Your task to perform on an android device: Open display settings Image 0: 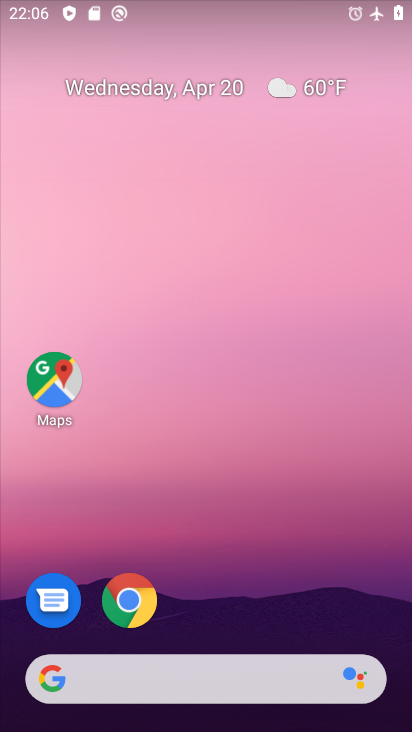
Step 0: drag from (256, 648) to (265, 12)
Your task to perform on an android device: Open display settings Image 1: 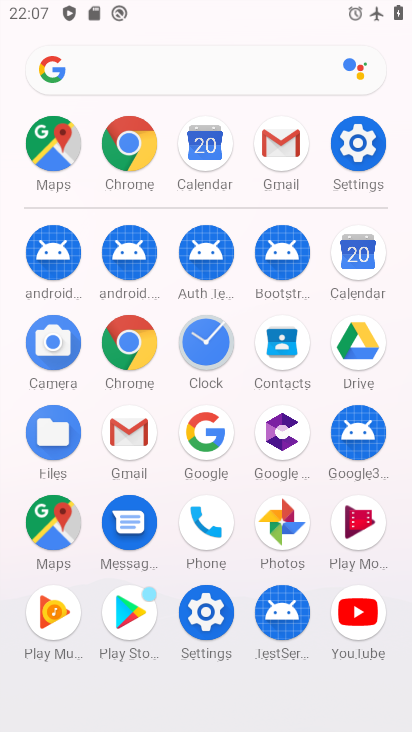
Step 1: click (208, 591)
Your task to perform on an android device: Open display settings Image 2: 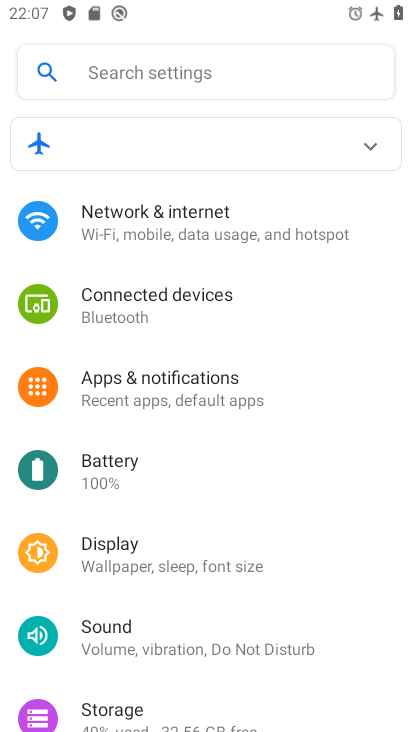
Step 2: click (125, 553)
Your task to perform on an android device: Open display settings Image 3: 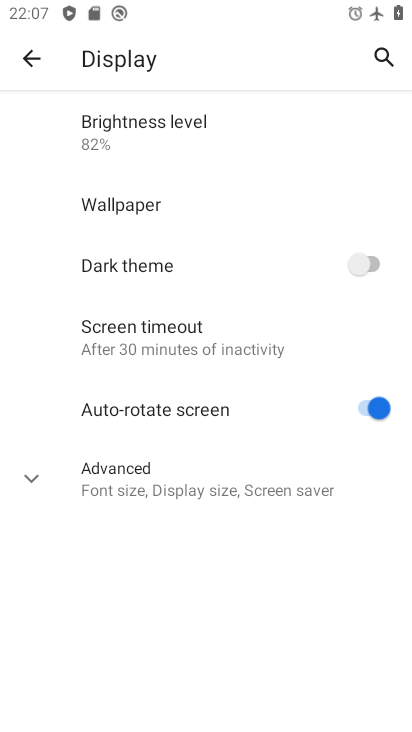
Step 3: click (166, 472)
Your task to perform on an android device: Open display settings Image 4: 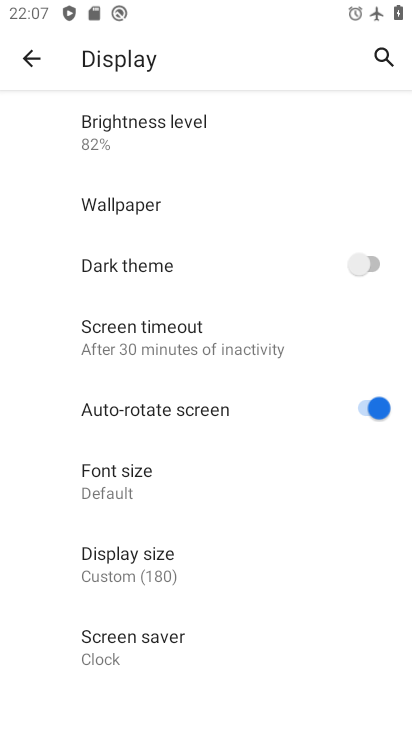
Step 4: task complete